Your task to perform on an android device: Open battery settings Image 0: 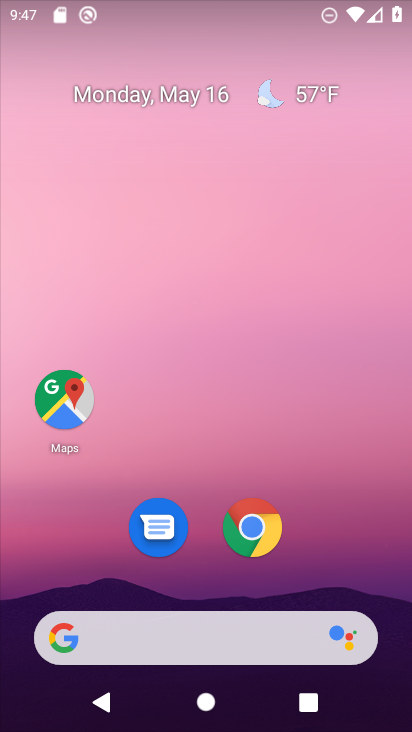
Step 0: drag from (386, 617) to (350, 240)
Your task to perform on an android device: Open battery settings Image 1: 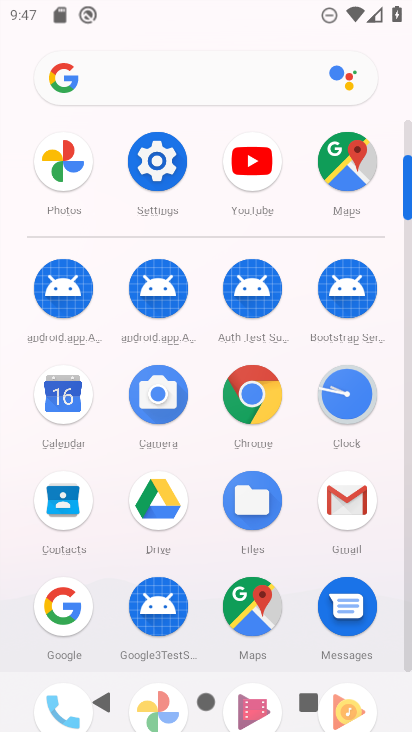
Step 1: click (173, 158)
Your task to perform on an android device: Open battery settings Image 2: 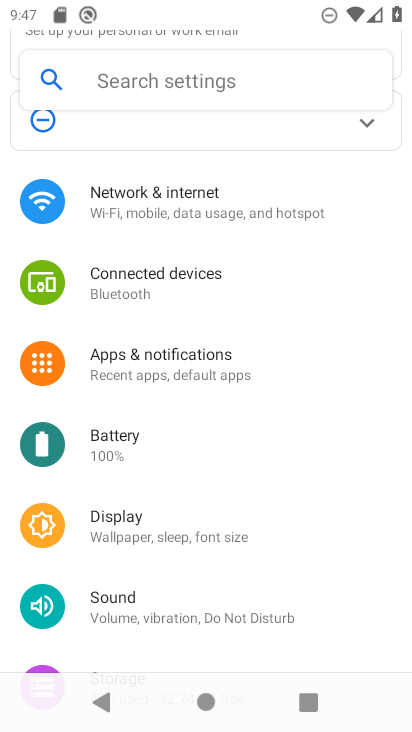
Step 2: click (126, 445)
Your task to perform on an android device: Open battery settings Image 3: 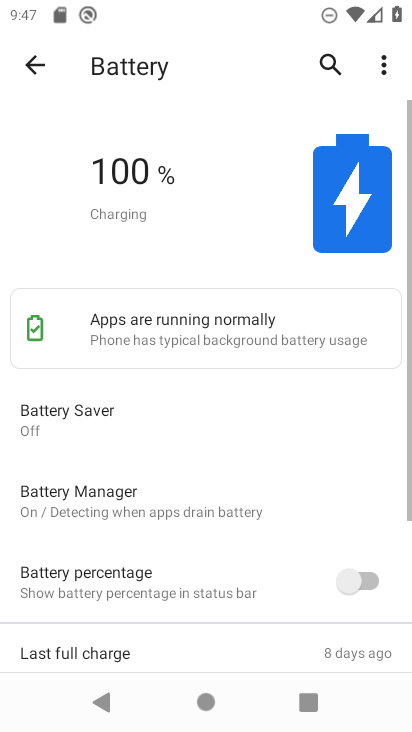
Step 3: task complete